Your task to perform on an android device: Go to calendar. Show me events next week Image 0: 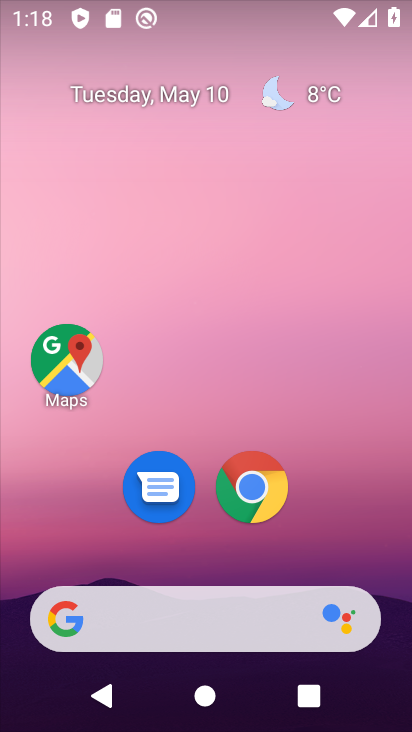
Step 0: drag from (334, 487) to (326, 157)
Your task to perform on an android device: Go to calendar. Show me events next week Image 1: 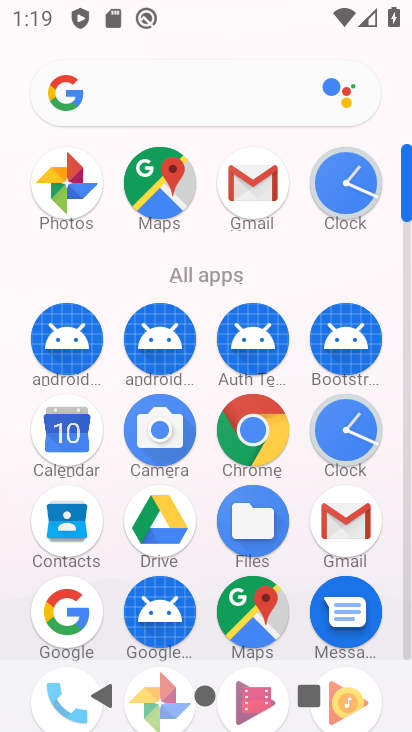
Step 1: click (57, 515)
Your task to perform on an android device: Go to calendar. Show me events next week Image 2: 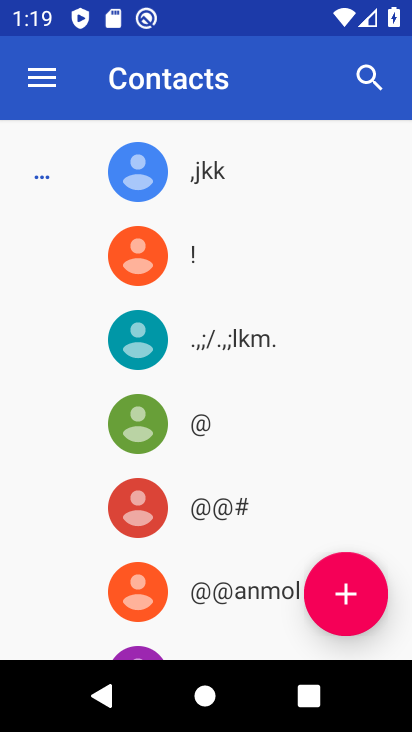
Step 2: press home button
Your task to perform on an android device: Go to calendar. Show me events next week Image 3: 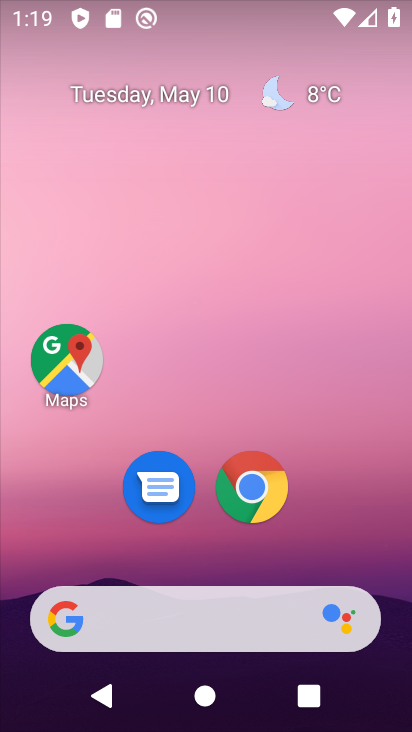
Step 3: drag from (368, 535) to (294, 82)
Your task to perform on an android device: Go to calendar. Show me events next week Image 4: 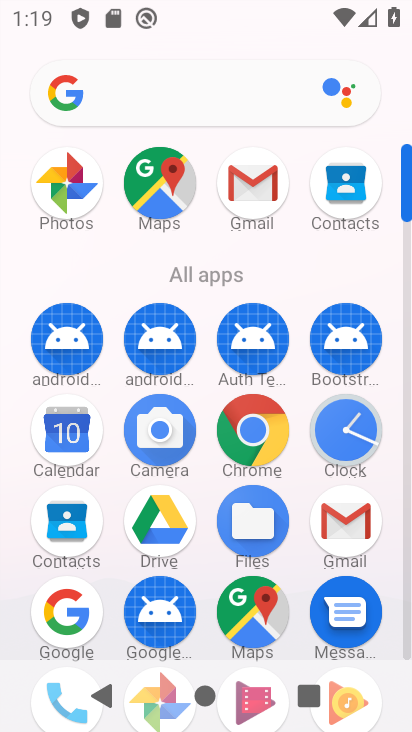
Step 4: click (71, 430)
Your task to perform on an android device: Go to calendar. Show me events next week Image 5: 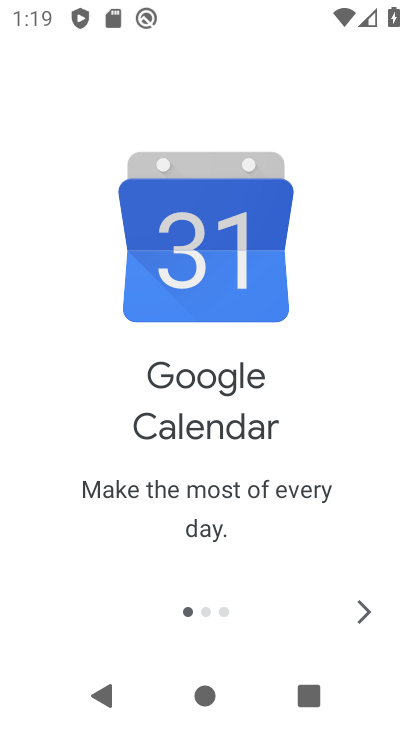
Step 5: click (363, 607)
Your task to perform on an android device: Go to calendar. Show me events next week Image 6: 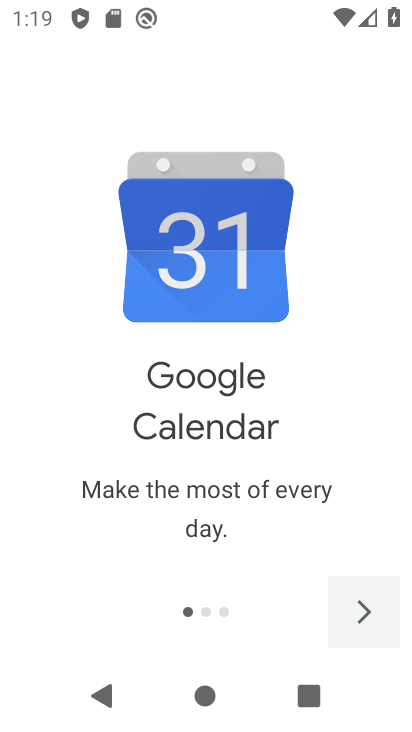
Step 6: click (362, 605)
Your task to perform on an android device: Go to calendar. Show me events next week Image 7: 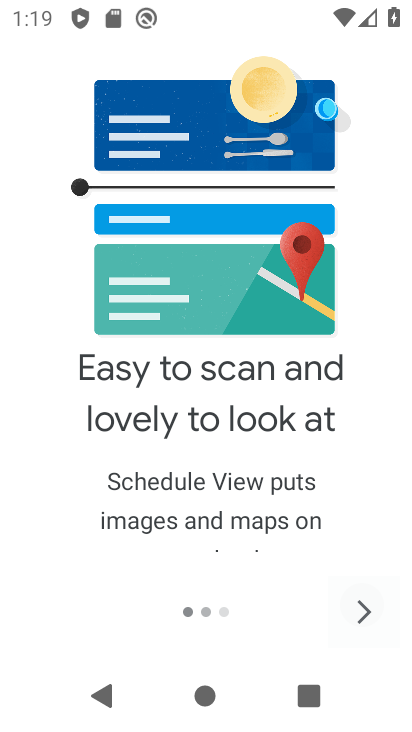
Step 7: click (362, 605)
Your task to perform on an android device: Go to calendar. Show me events next week Image 8: 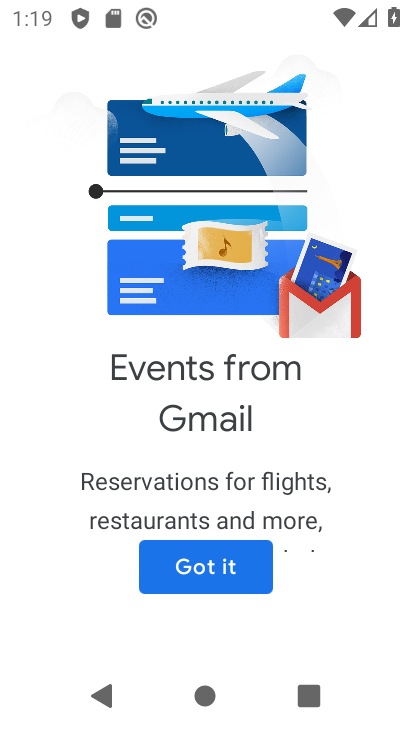
Step 8: click (362, 605)
Your task to perform on an android device: Go to calendar. Show me events next week Image 9: 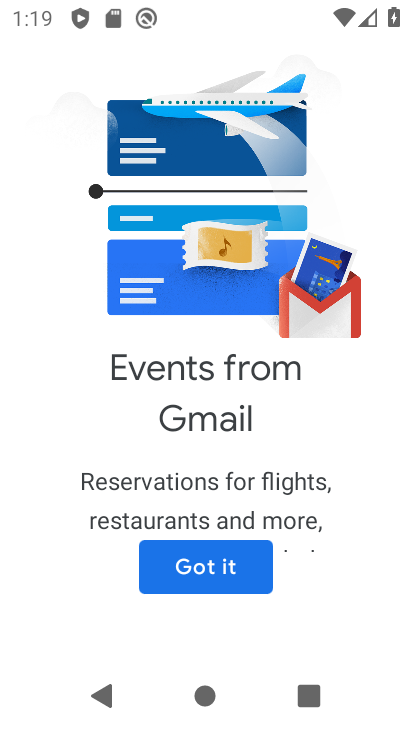
Step 9: click (224, 563)
Your task to perform on an android device: Go to calendar. Show me events next week Image 10: 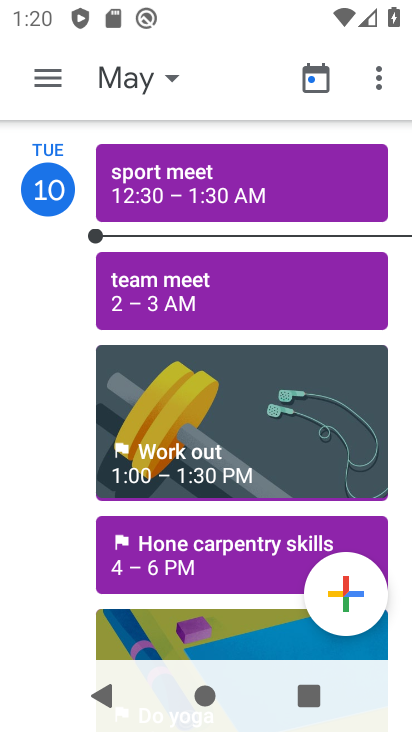
Step 10: click (134, 83)
Your task to perform on an android device: Go to calendar. Show me events next week Image 11: 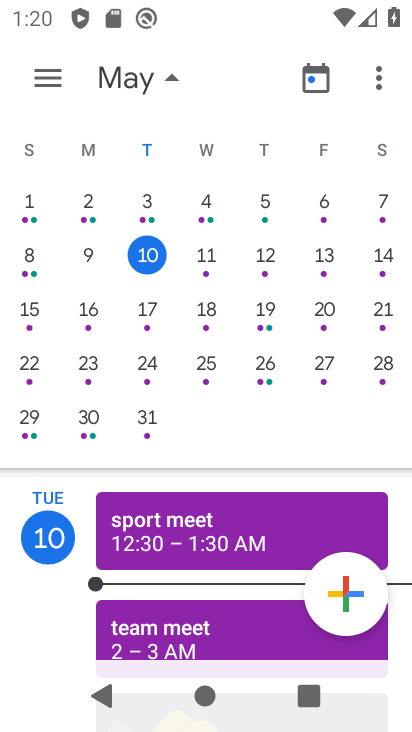
Step 11: click (151, 320)
Your task to perform on an android device: Go to calendar. Show me events next week Image 12: 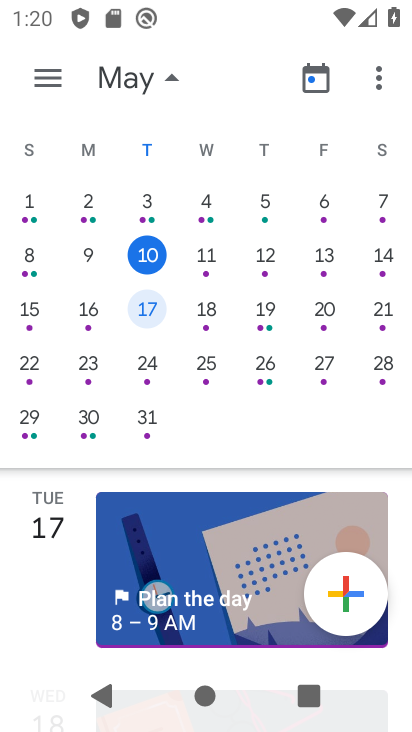
Step 12: task complete